Your task to perform on an android device: Check the settings for the Google Chrome app Image 0: 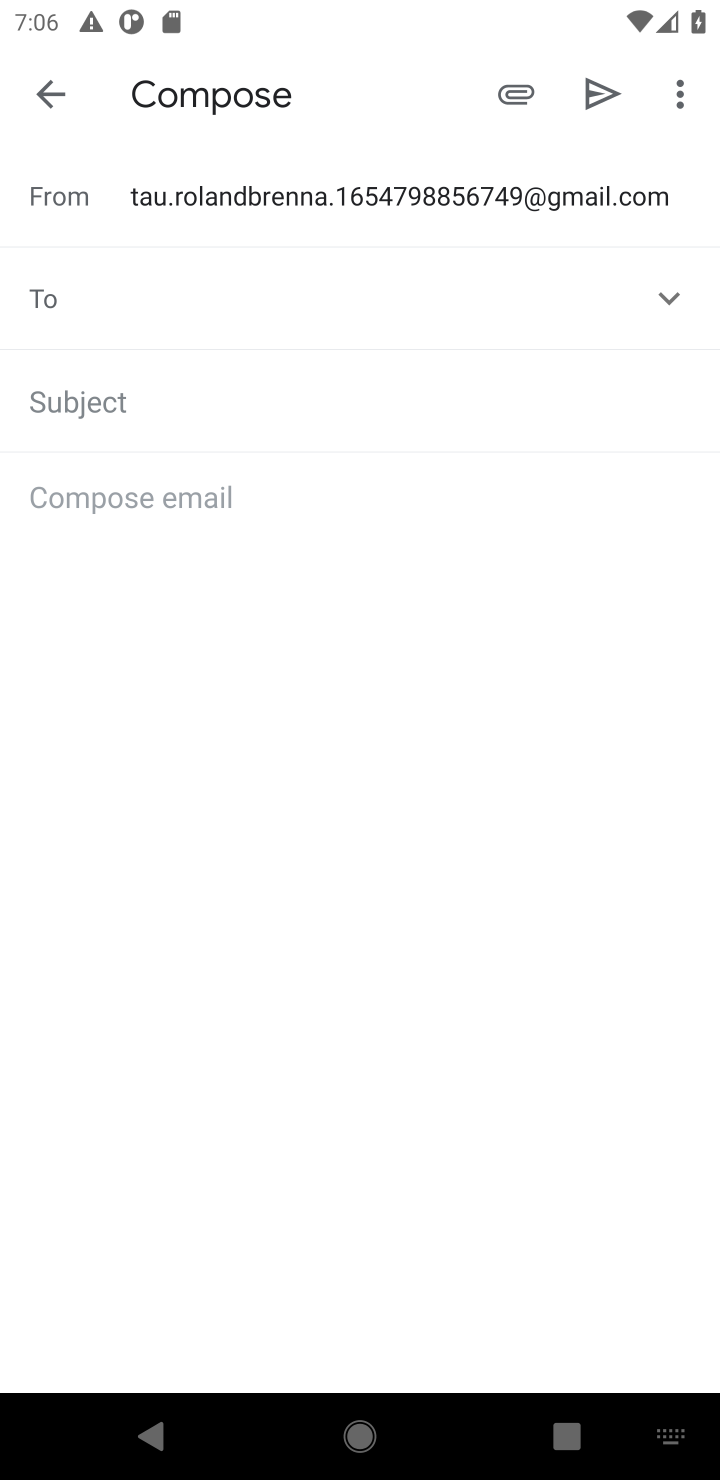
Step 0: press home button
Your task to perform on an android device: Check the settings for the Google Chrome app Image 1: 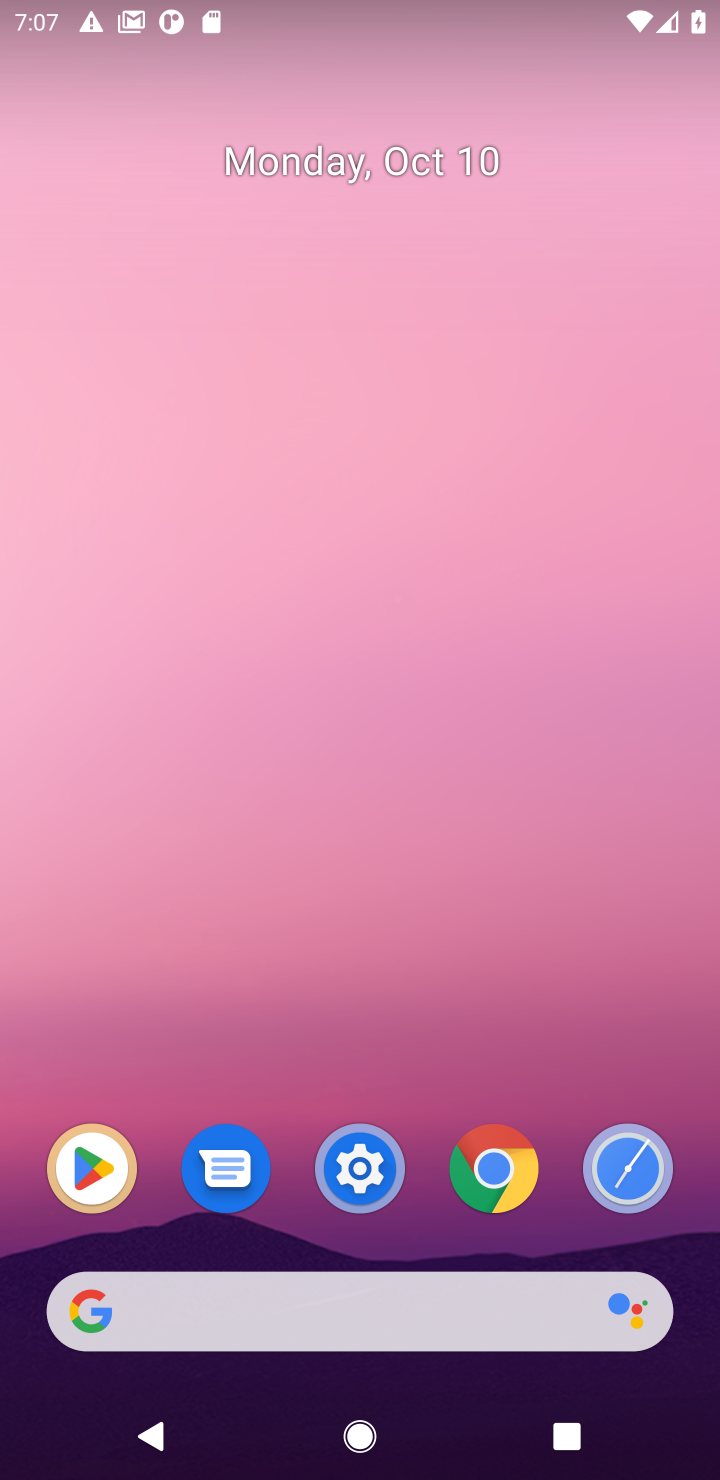
Step 1: click (500, 1181)
Your task to perform on an android device: Check the settings for the Google Chrome app Image 2: 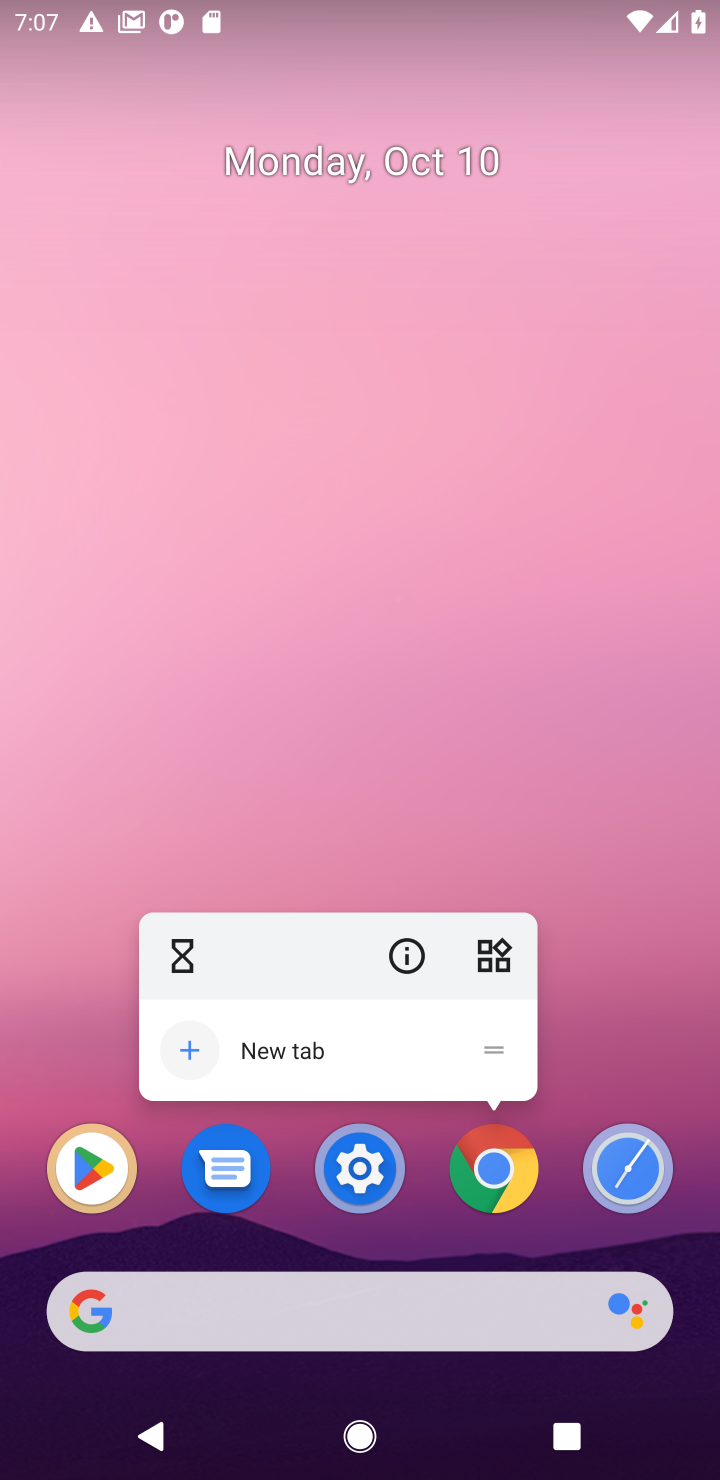
Step 2: click (500, 1181)
Your task to perform on an android device: Check the settings for the Google Chrome app Image 3: 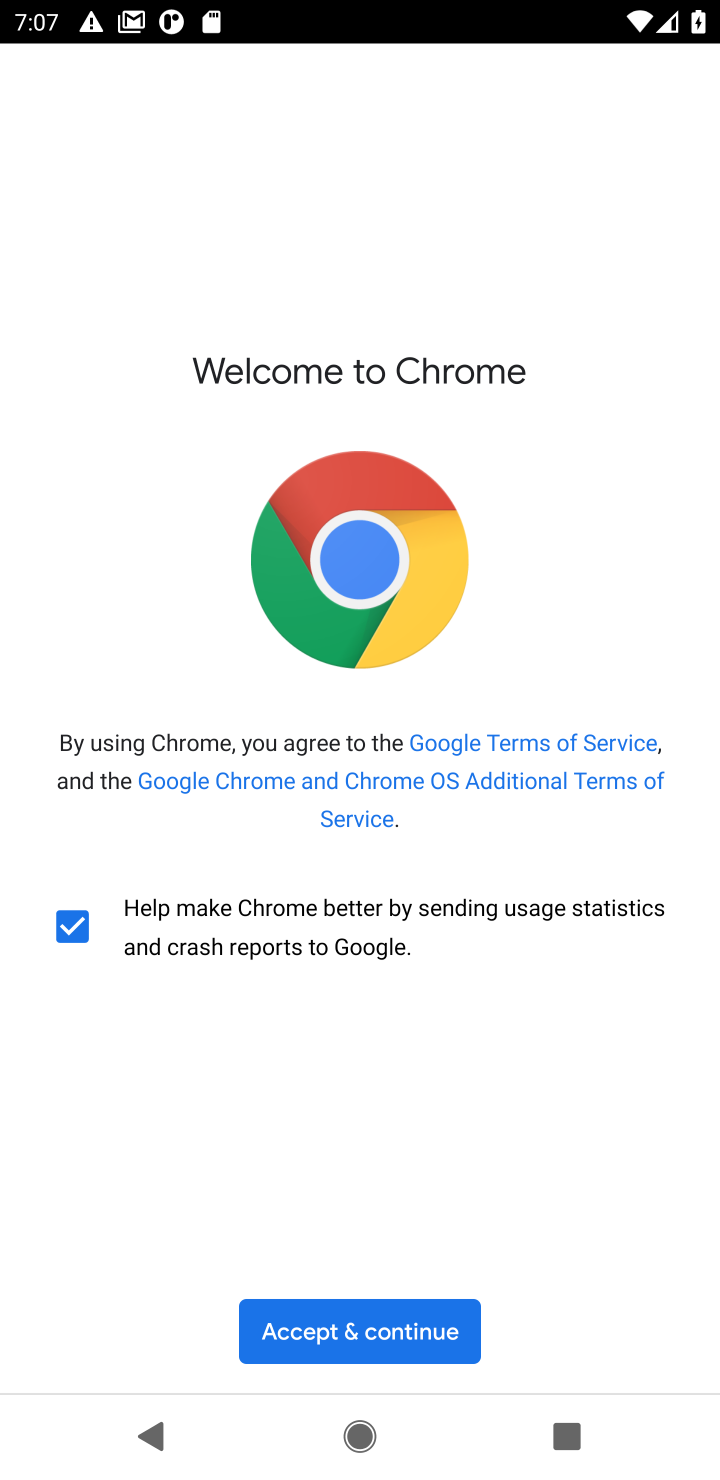
Step 3: click (355, 1326)
Your task to perform on an android device: Check the settings for the Google Chrome app Image 4: 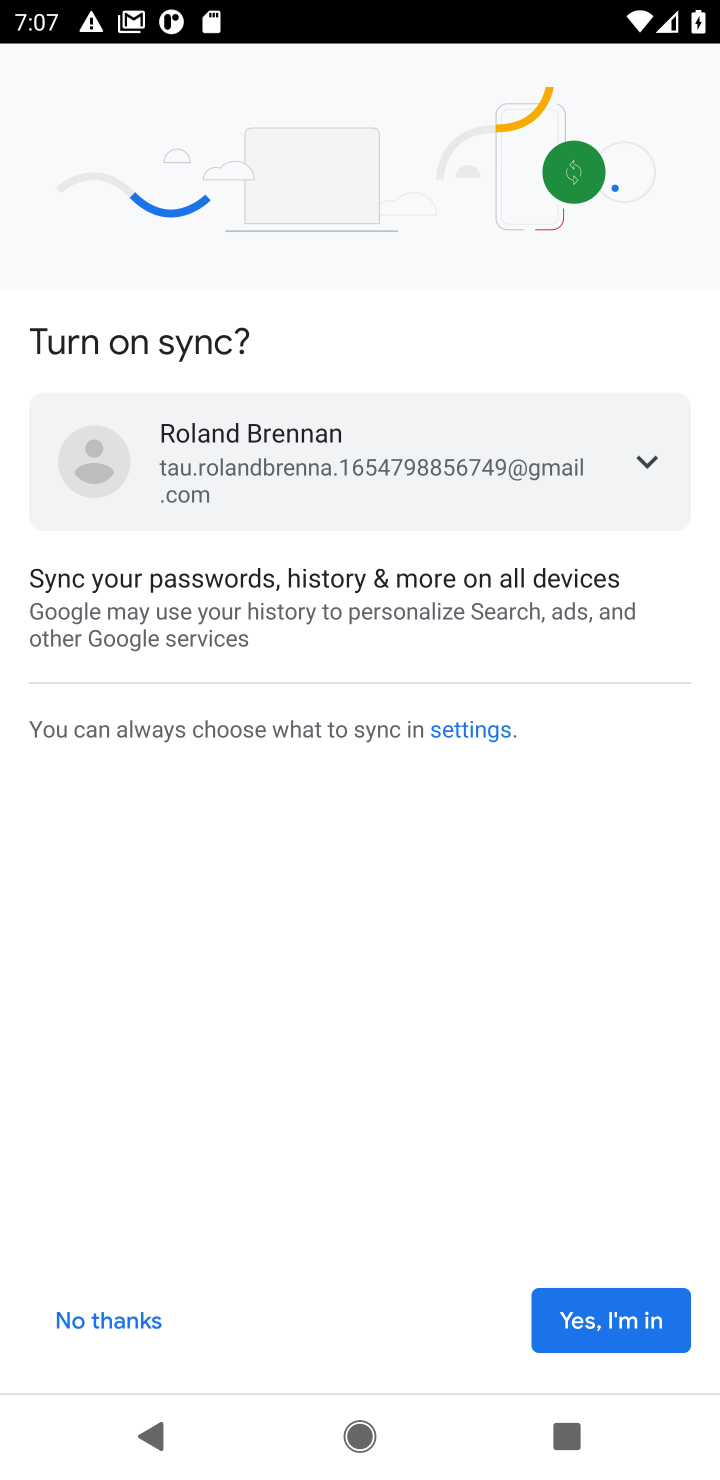
Step 4: click (104, 1334)
Your task to perform on an android device: Check the settings for the Google Chrome app Image 5: 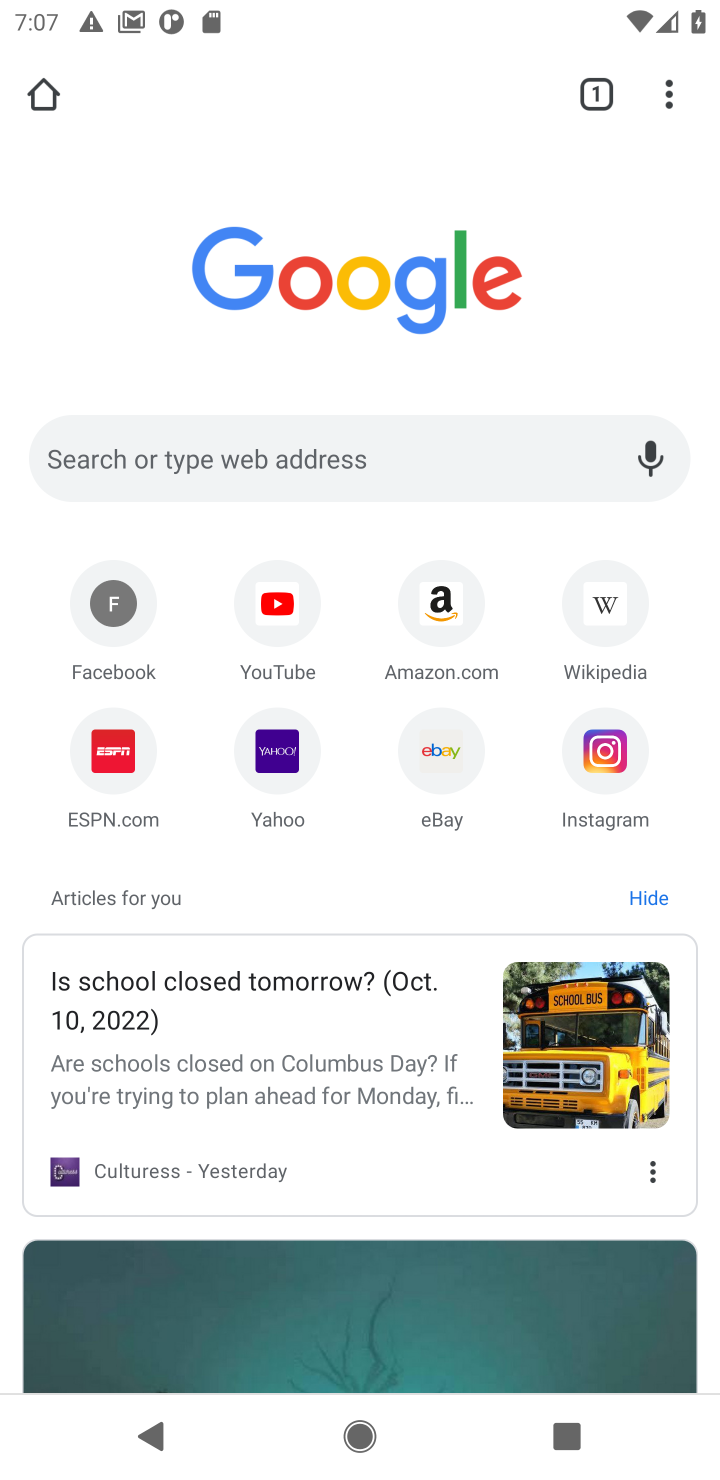
Step 5: click (664, 99)
Your task to perform on an android device: Check the settings for the Google Chrome app Image 6: 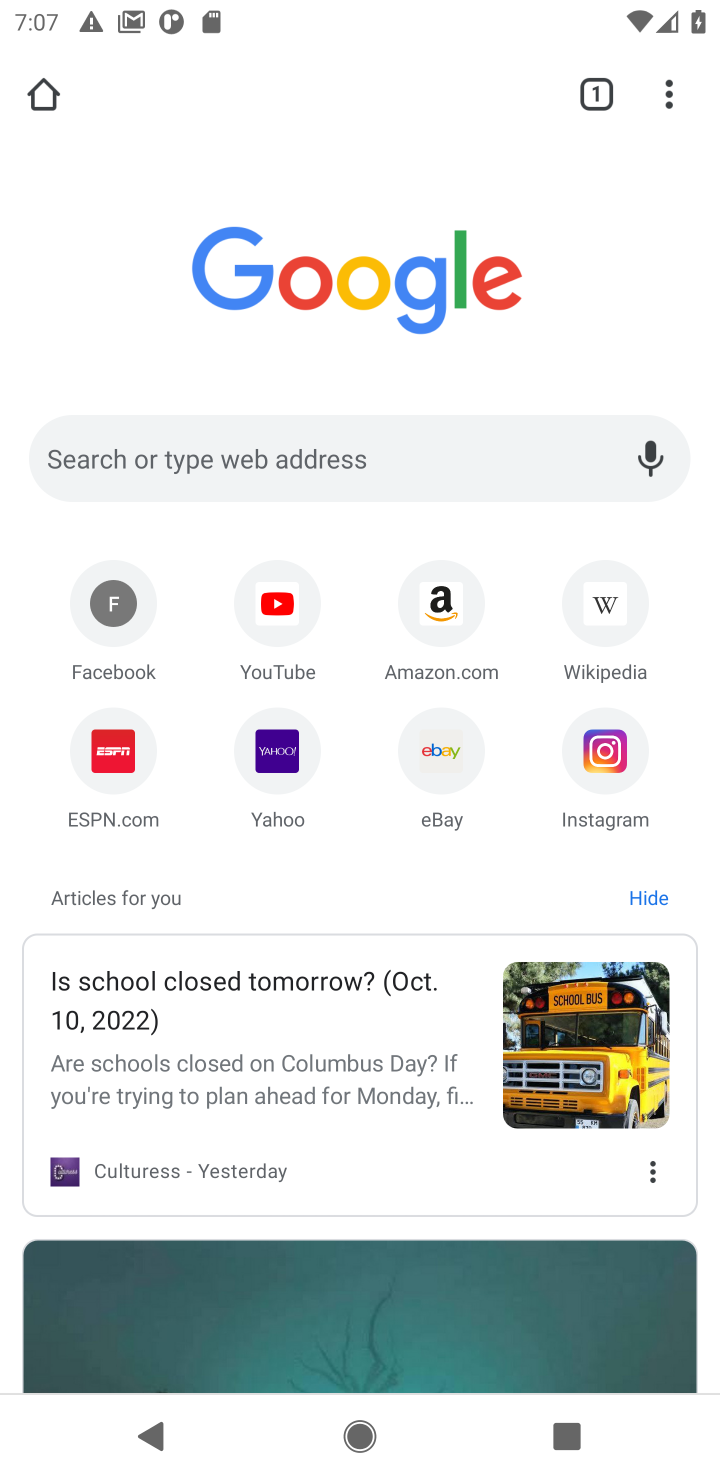
Step 6: click (670, 99)
Your task to perform on an android device: Check the settings for the Google Chrome app Image 7: 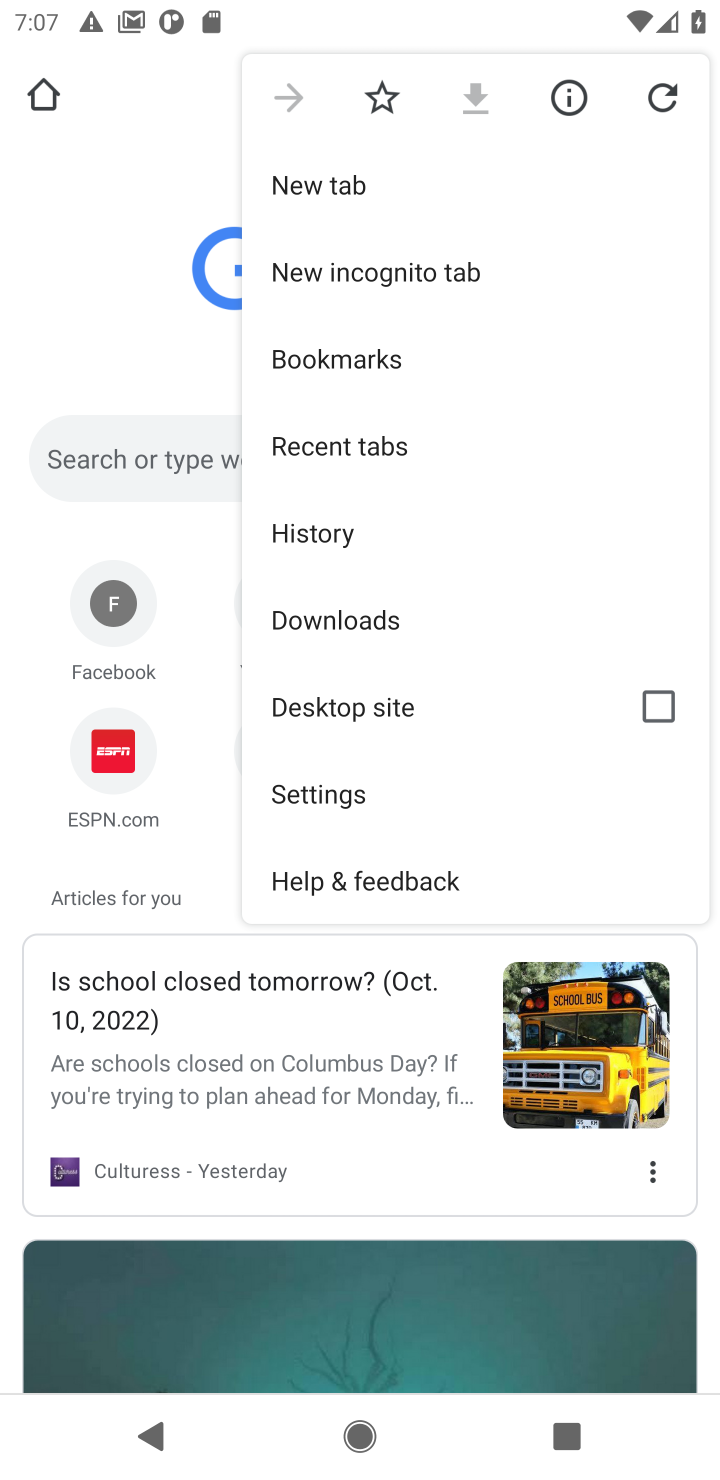
Step 7: click (344, 783)
Your task to perform on an android device: Check the settings for the Google Chrome app Image 8: 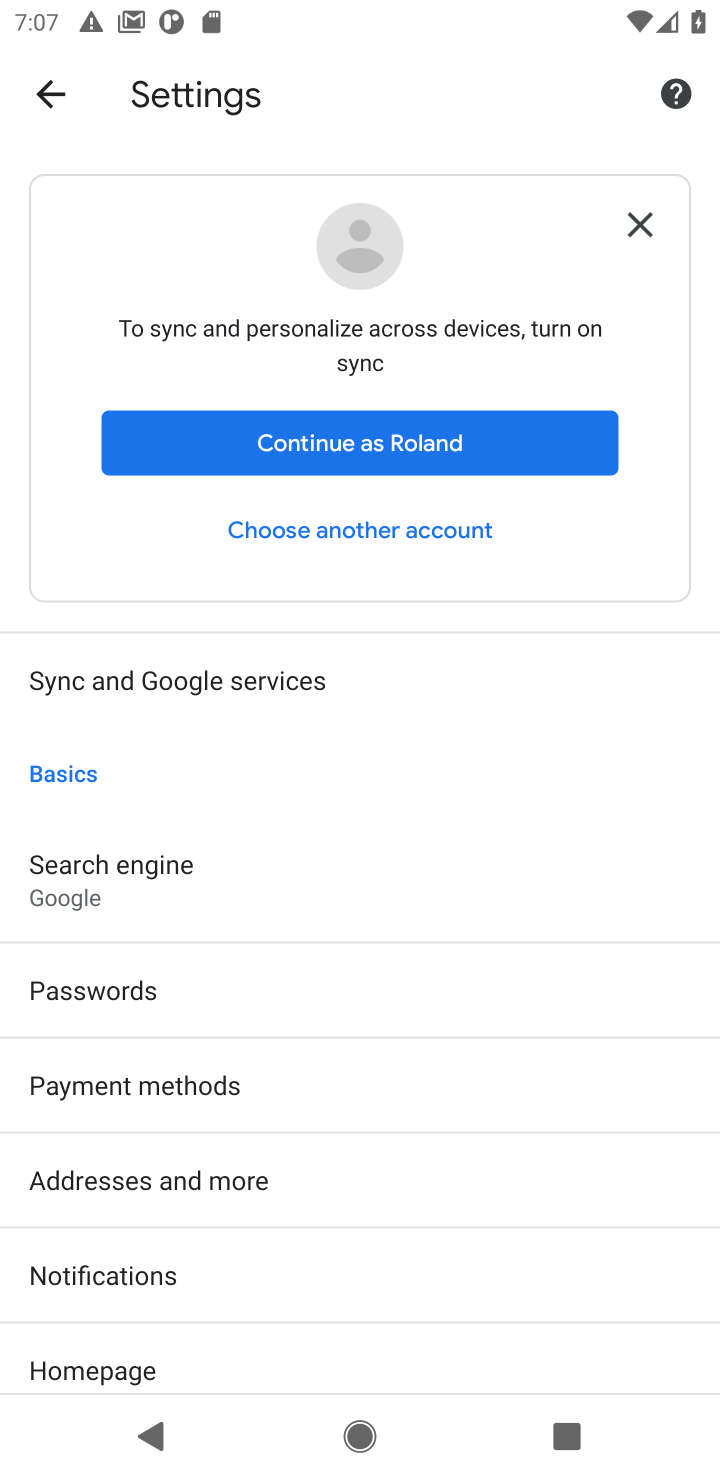
Step 8: task complete